Your task to perform on an android device: change the clock display to analog Image 0: 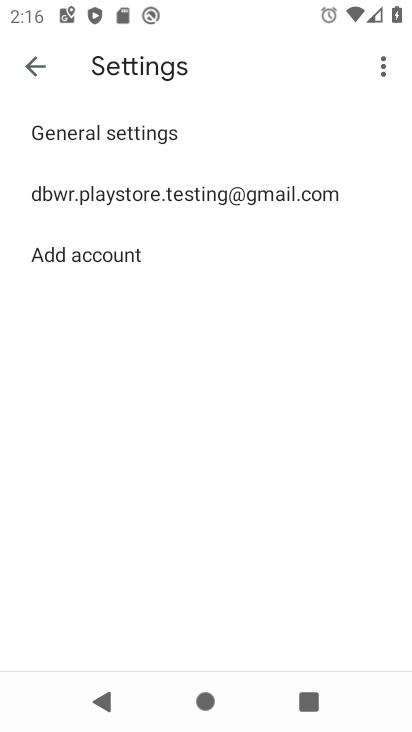
Step 0: press home button
Your task to perform on an android device: change the clock display to analog Image 1: 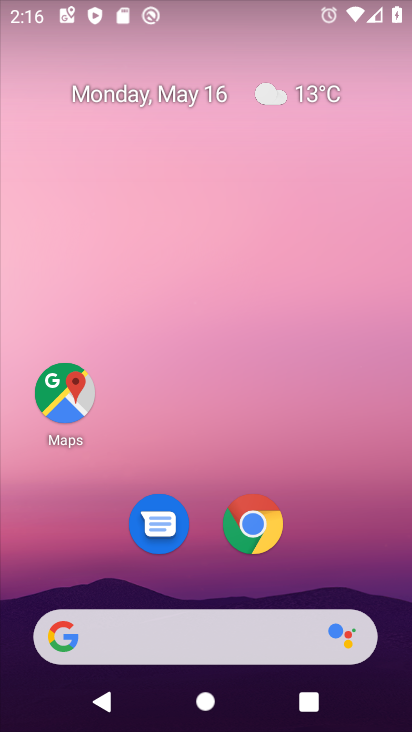
Step 1: drag from (311, 501) to (293, 8)
Your task to perform on an android device: change the clock display to analog Image 2: 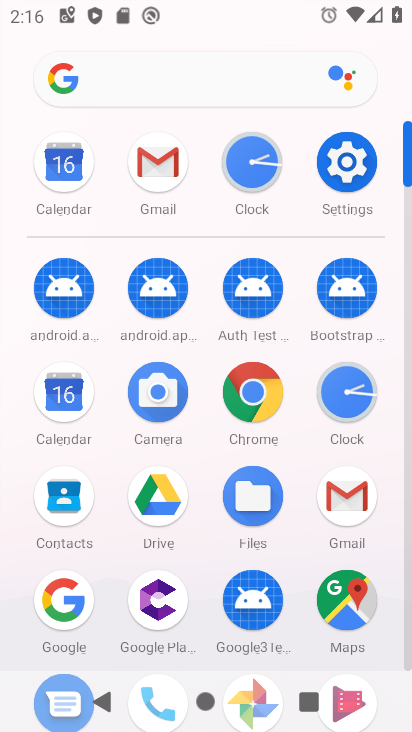
Step 2: click (252, 140)
Your task to perform on an android device: change the clock display to analog Image 3: 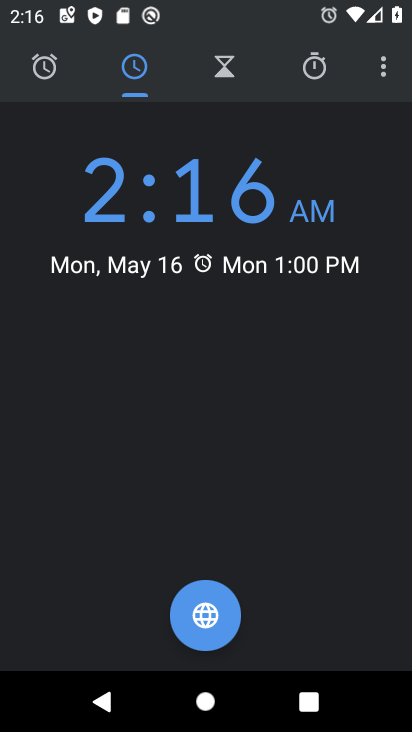
Step 3: click (380, 73)
Your task to perform on an android device: change the clock display to analog Image 4: 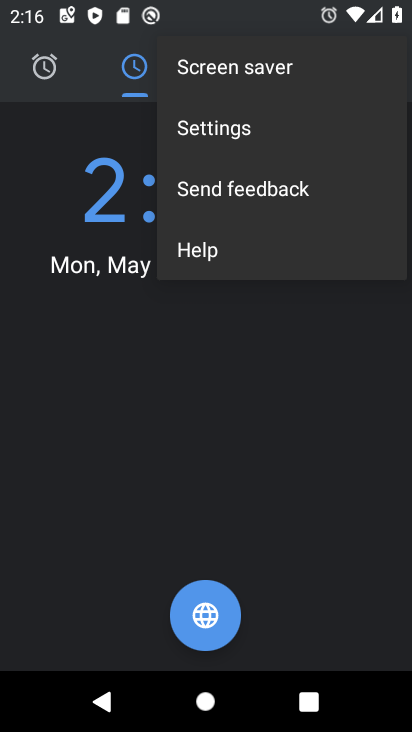
Step 4: click (275, 125)
Your task to perform on an android device: change the clock display to analog Image 5: 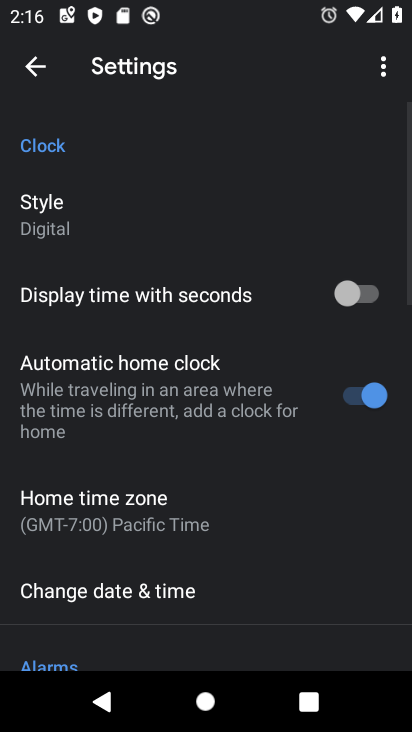
Step 5: click (130, 213)
Your task to perform on an android device: change the clock display to analog Image 6: 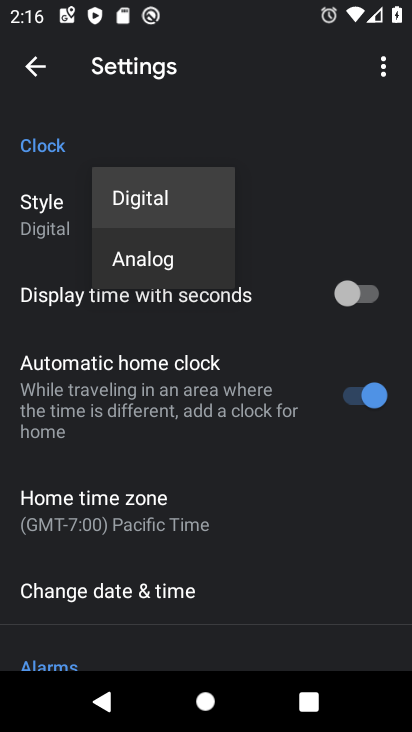
Step 6: click (138, 256)
Your task to perform on an android device: change the clock display to analog Image 7: 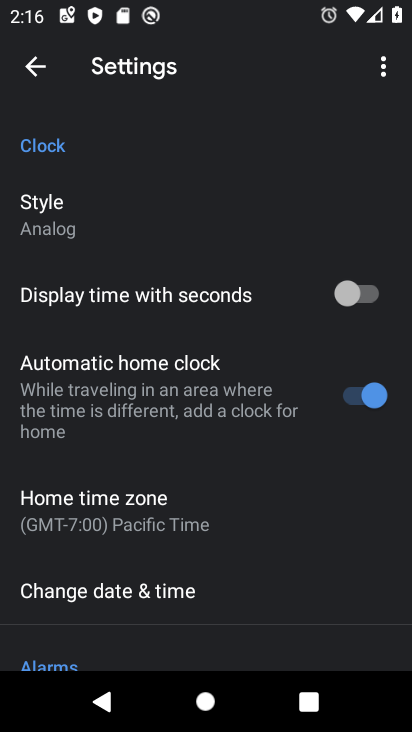
Step 7: click (38, 62)
Your task to perform on an android device: change the clock display to analog Image 8: 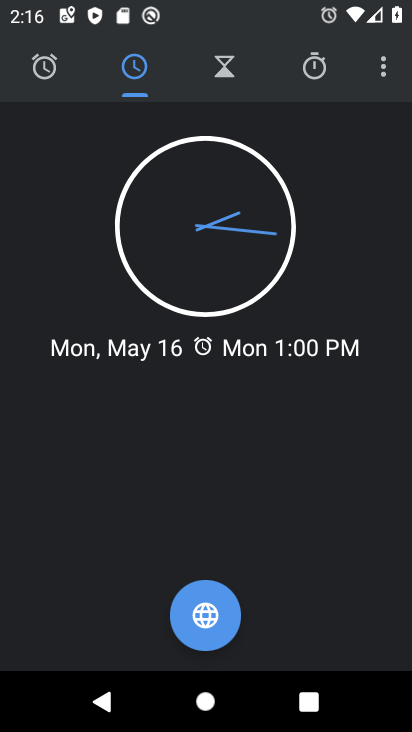
Step 8: task complete